Your task to perform on an android device: Open the web browser Image 0: 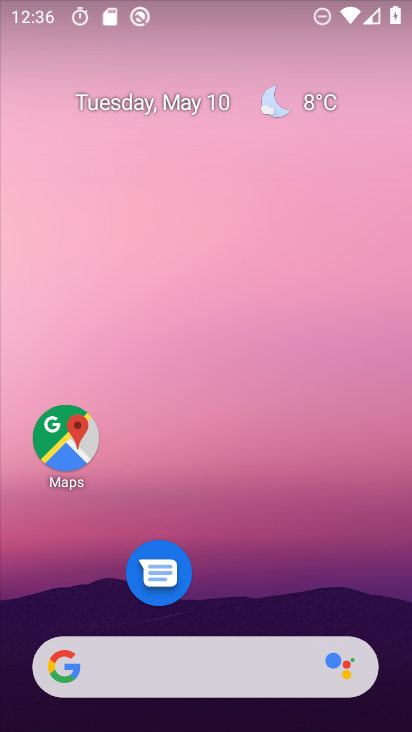
Step 0: drag from (236, 608) to (295, 4)
Your task to perform on an android device: Open the web browser Image 1: 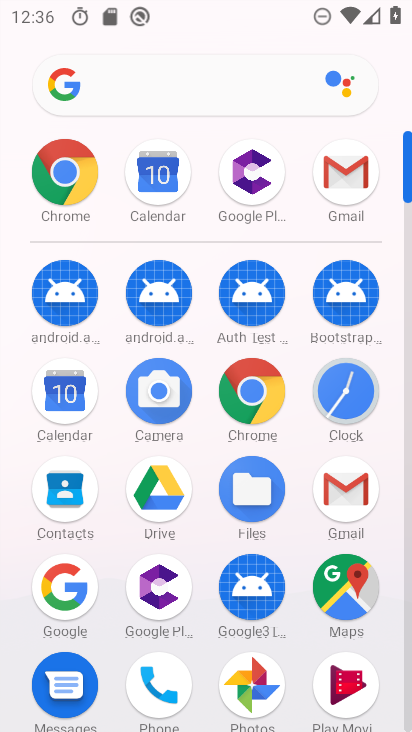
Step 1: click (250, 412)
Your task to perform on an android device: Open the web browser Image 2: 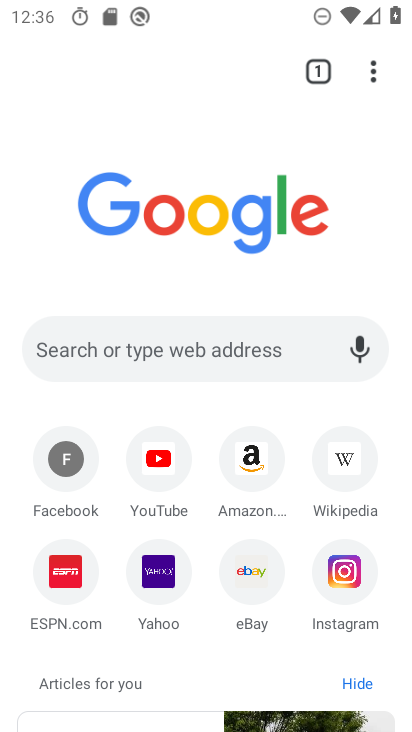
Step 2: task complete